Your task to perform on an android device: Open Google Maps and go to "Timeline" Image 0: 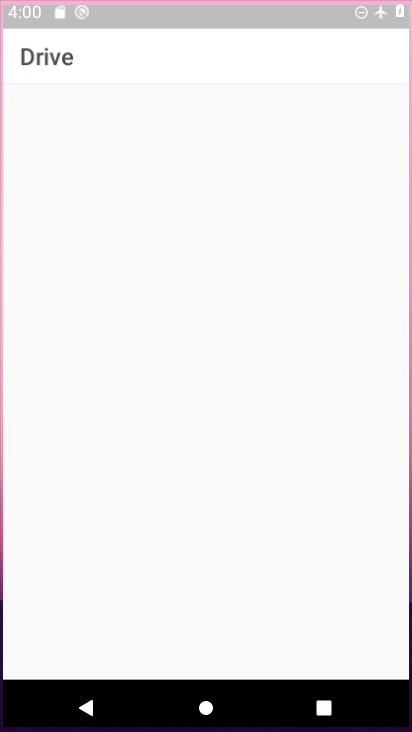
Step 0: click (127, 579)
Your task to perform on an android device: Open Google Maps and go to "Timeline" Image 1: 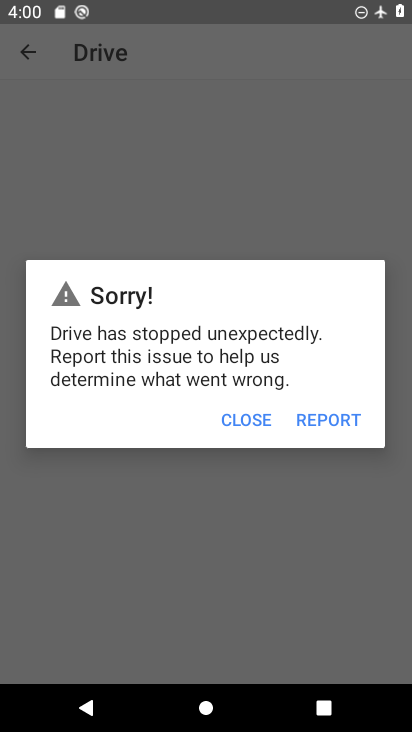
Step 1: press home button
Your task to perform on an android device: Open Google Maps and go to "Timeline" Image 2: 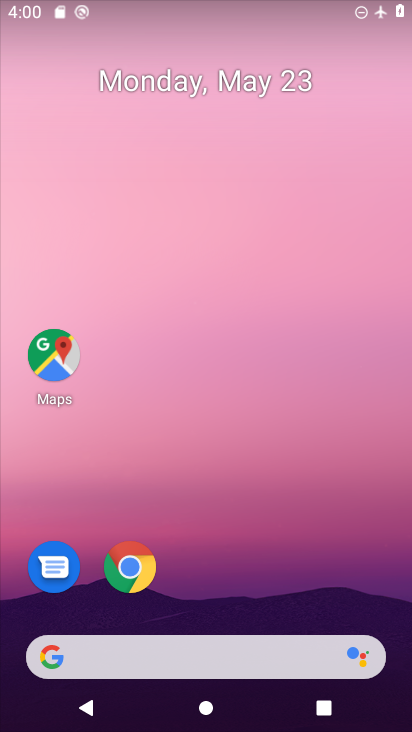
Step 2: click (54, 356)
Your task to perform on an android device: Open Google Maps and go to "Timeline" Image 3: 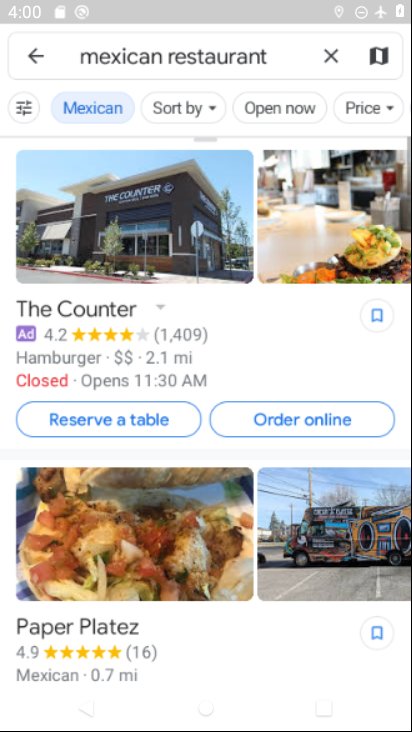
Step 3: click (328, 52)
Your task to perform on an android device: Open Google Maps and go to "Timeline" Image 4: 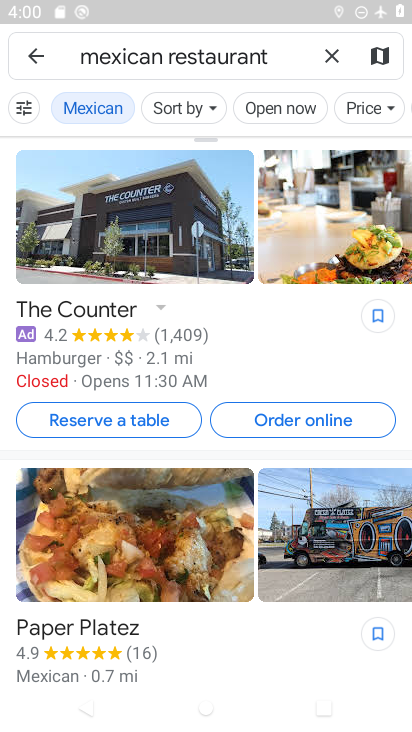
Step 4: click (329, 52)
Your task to perform on an android device: Open Google Maps and go to "Timeline" Image 5: 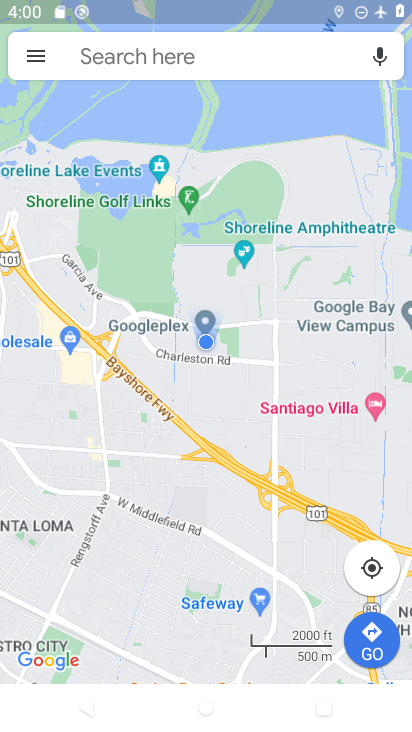
Step 5: click (39, 61)
Your task to perform on an android device: Open Google Maps and go to "Timeline" Image 6: 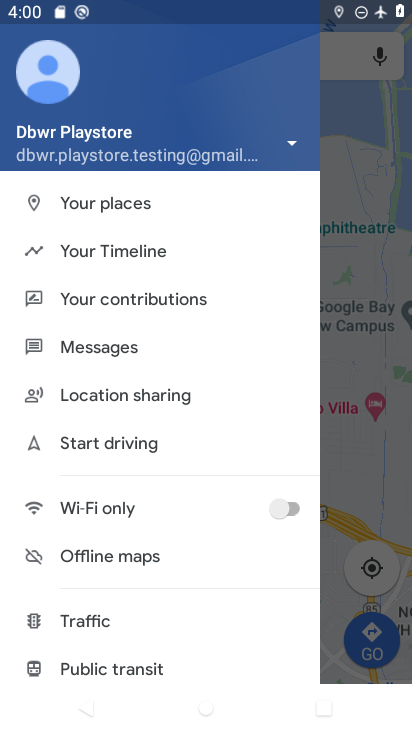
Step 6: click (118, 251)
Your task to perform on an android device: Open Google Maps and go to "Timeline" Image 7: 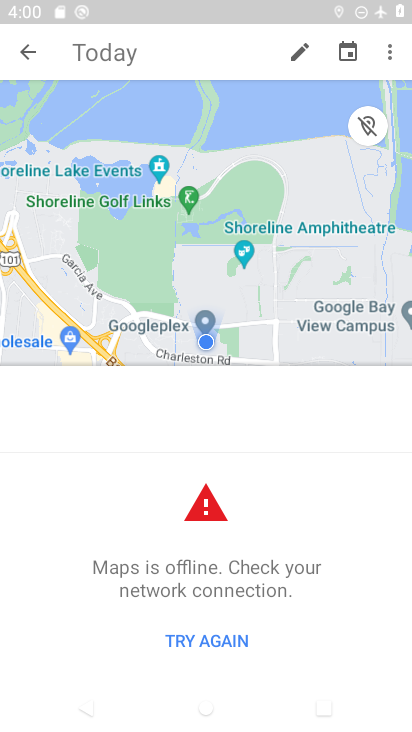
Step 7: click (220, 642)
Your task to perform on an android device: Open Google Maps and go to "Timeline" Image 8: 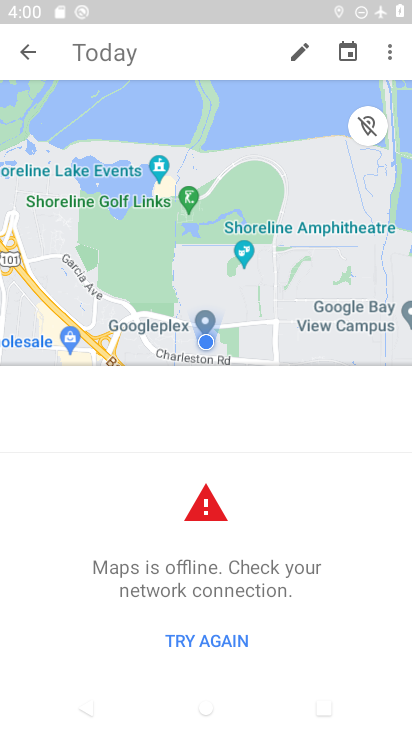
Step 8: task complete